Your task to perform on an android device: make emails show in primary in the gmail app Image 0: 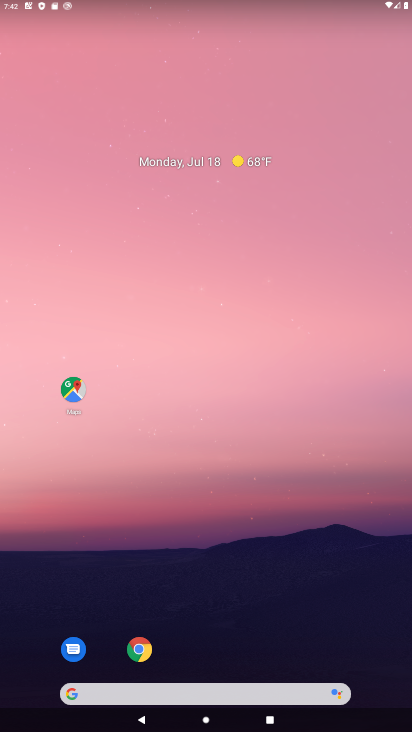
Step 0: drag from (195, 718) to (268, 268)
Your task to perform on an android device: make emails show in primary in the gmail app Image 1: 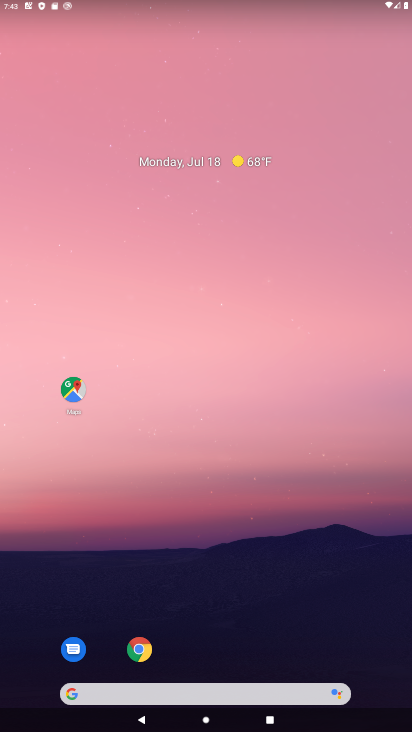
Step 1: drag from (234, 564) to (354, 155)
Your task to perform on an android device: make emails show in primary in the gmail app Image 2: 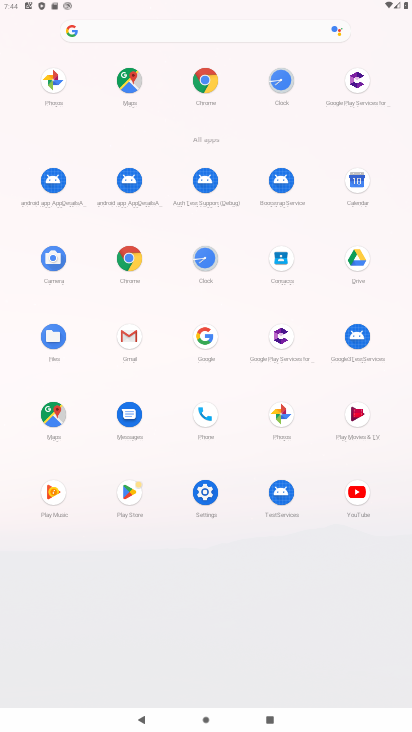
Step 2: click (136, 343)
Your task to perform on an android device: make emails show in primary in the gmail app Image 3: 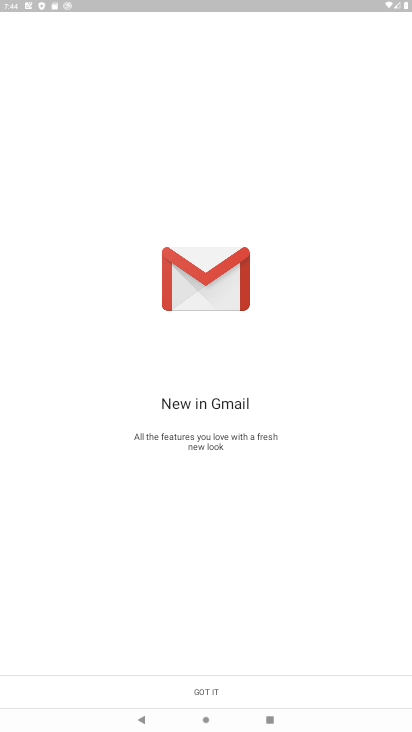
Step 3: click (161, 678)
Your task to perform on an android device: make emails show in primary in the gmail app Image 4: 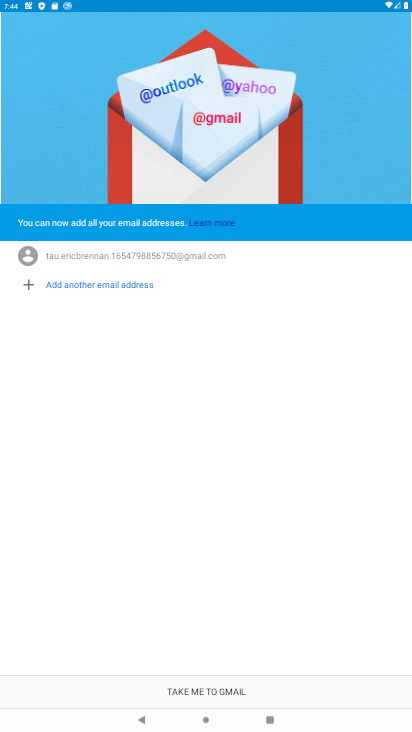
Step 4: click (157, 699)
Your task to perform on an android device: make emails show in primary in the gmail app Image 5: 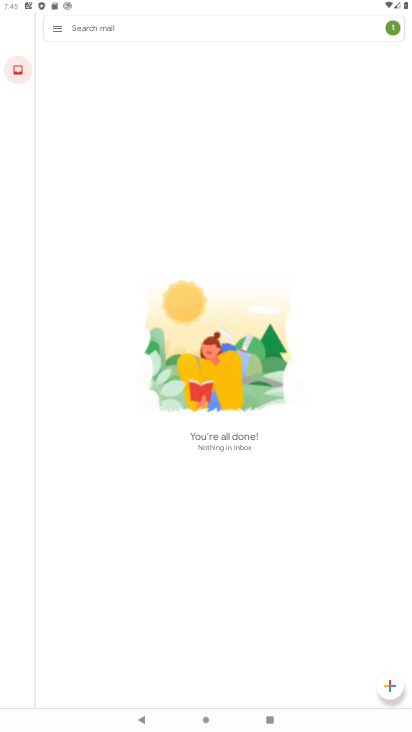
Step 5: click (57, 25)
Your task to perform on an android device: make emails show in primary in the gmail app Image 6: 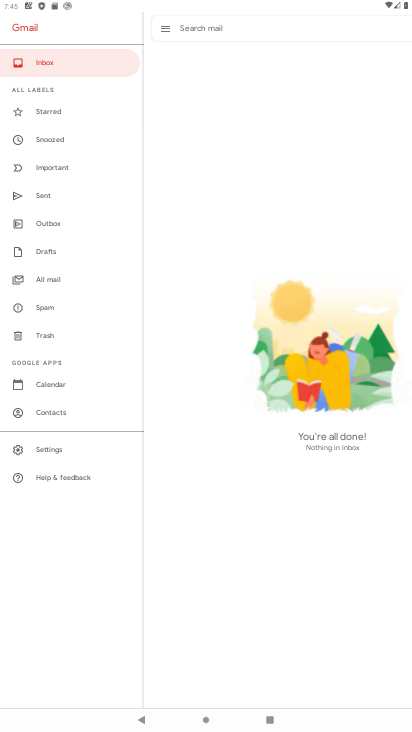
Step 6: click (71, 453)
Your task to perform on an android device: make emails show in primary in the gmail app Image 7: 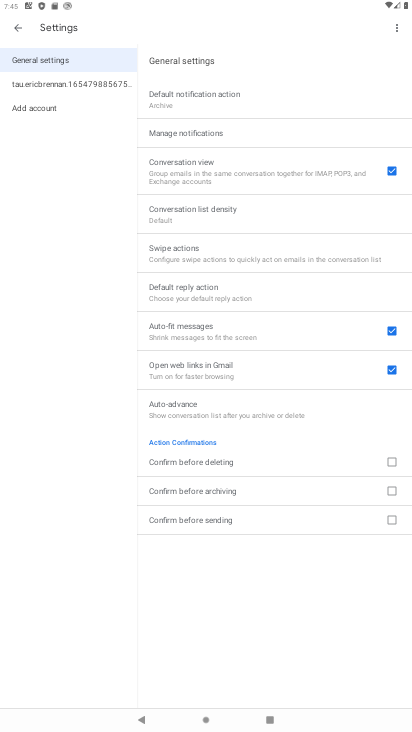
Step 7: click (80, 85)
Your task to perform on an android device: make emails show in primary in the gmail app Image 8: 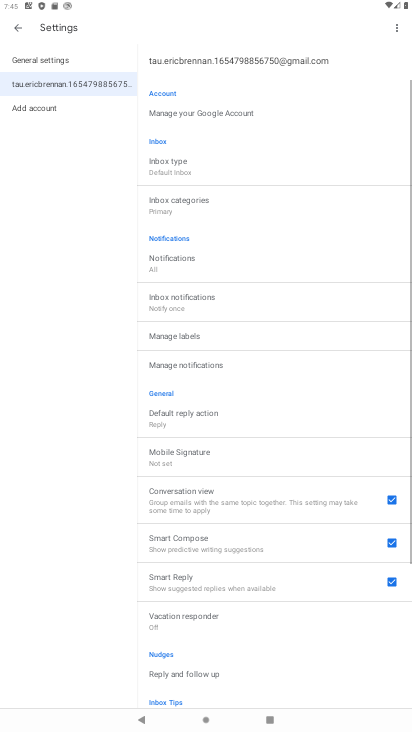
Step 8: click (167, 168)
Your task to perform on an android device: make emails show in primary in the gmail app Image 9: 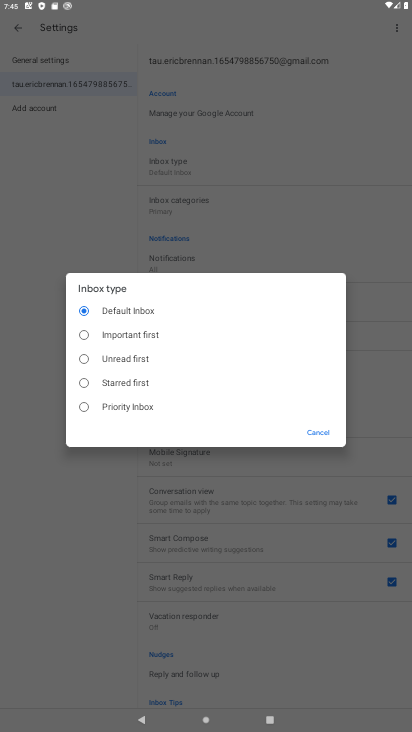
Step 9: click (29, 180)
Your task to perform on an android device: make emails show in primary in the gmail app Image 10: 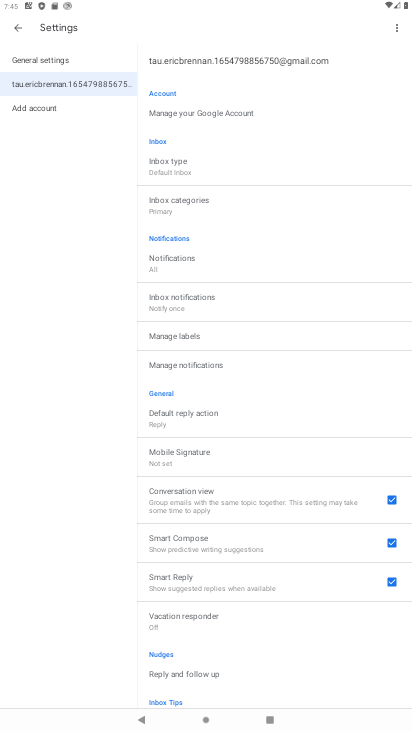
Step 10: task complete